Your task to perform on an android device: Add bose soundlink mini to the cart on target Image 0: 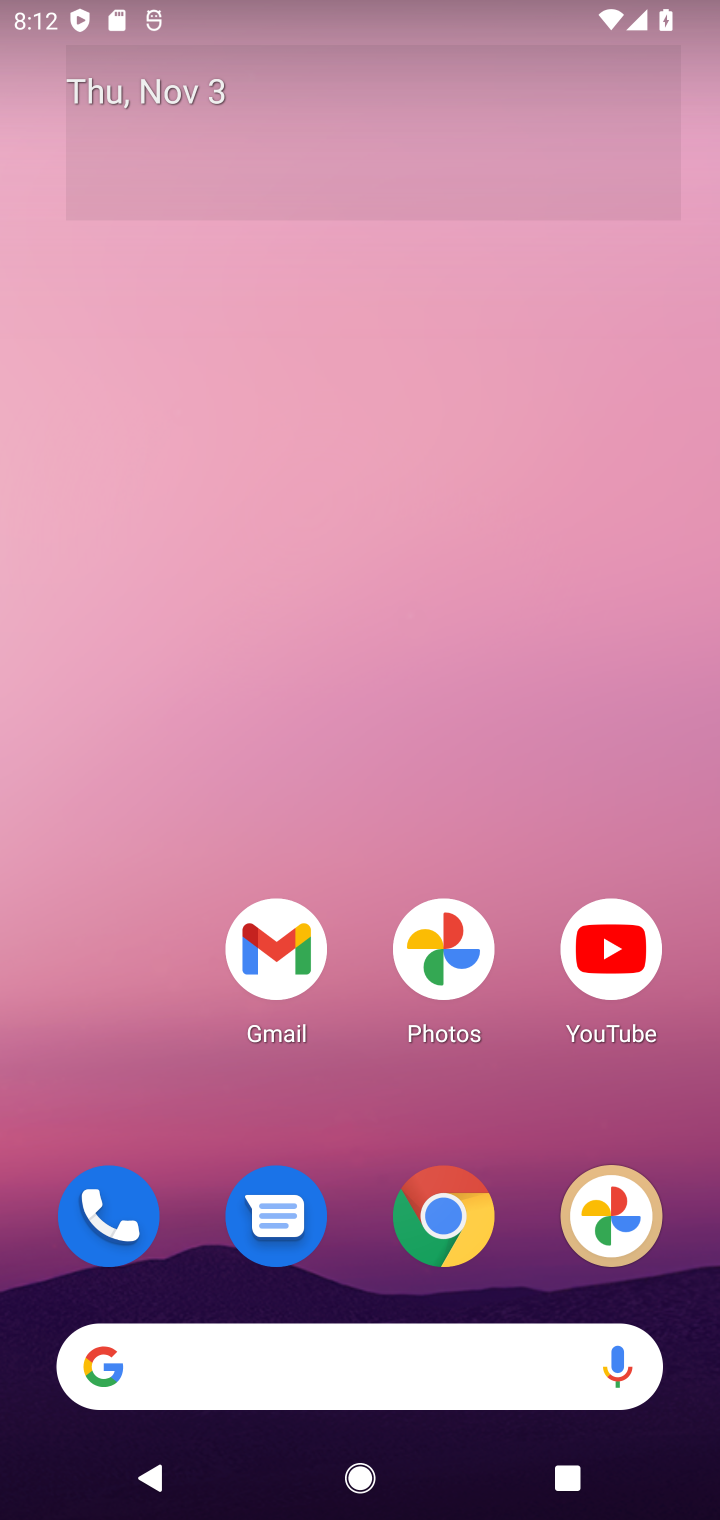
Step 0: click (460, 1237)
Your task to perform on an android device: Add bose soundlink mini to the cart on target Image 1: 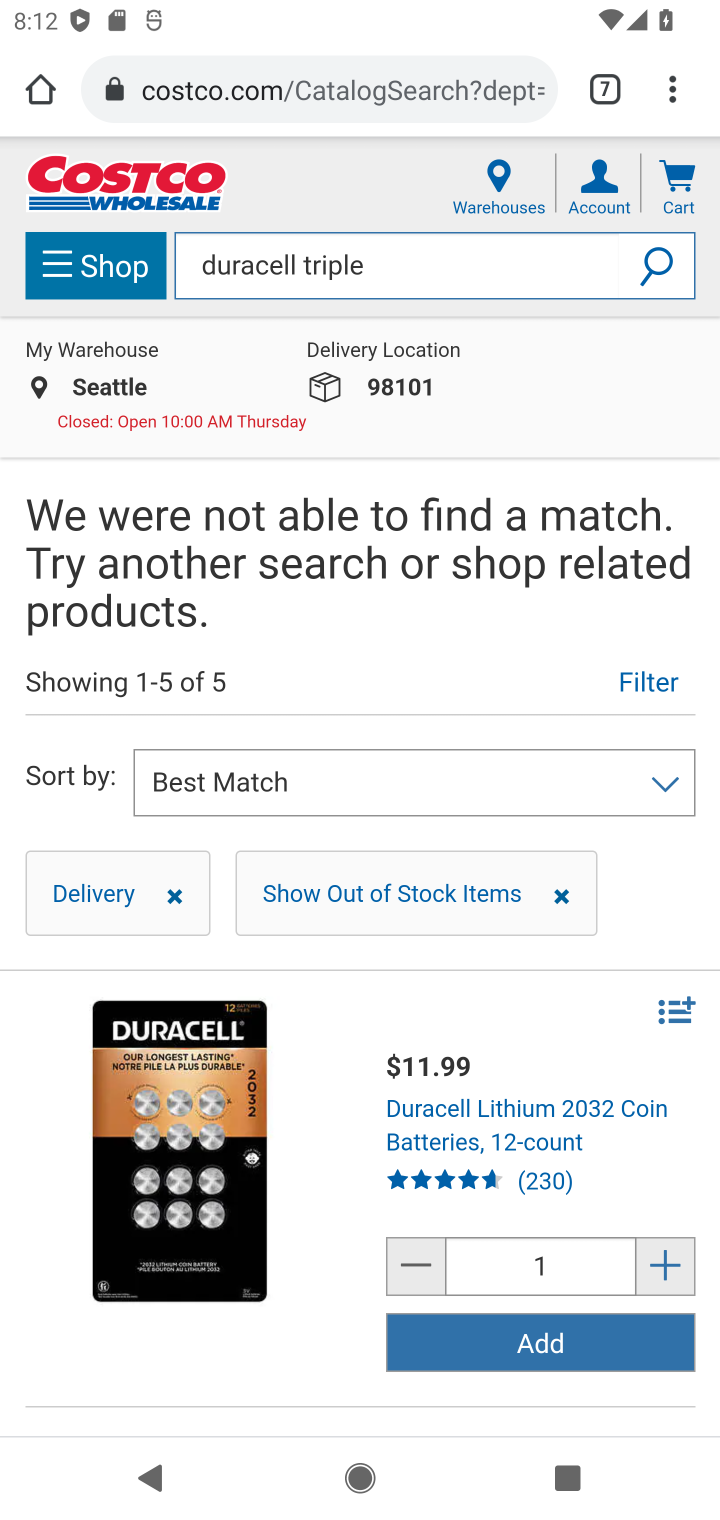
Step 1: click (611, 91)
Your task to perform on an android device: Add bose soundlink mini to the cart on target Image 2: 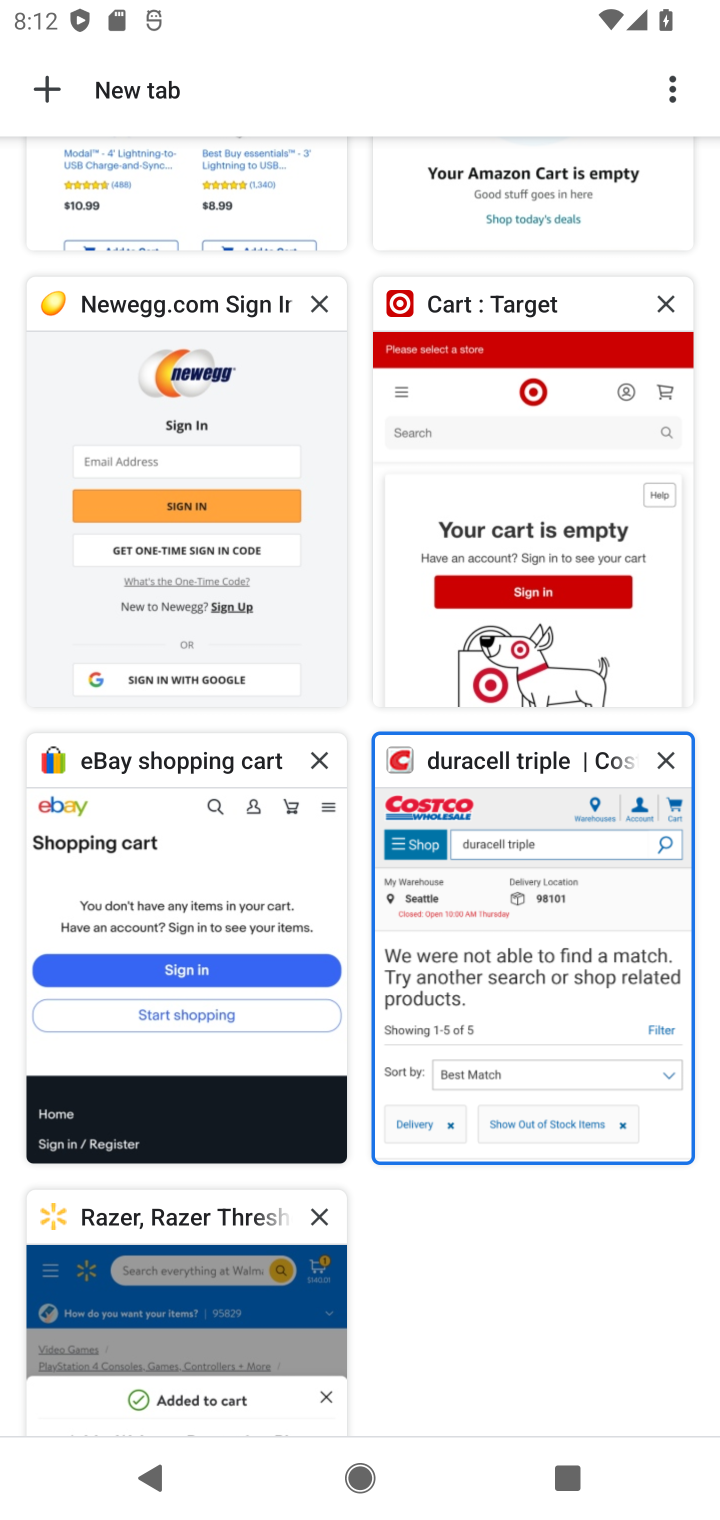
Step 2: click (567, 407)
Your task to perform on an android device: Add bose soundlink mini to the cart on target Image 3: 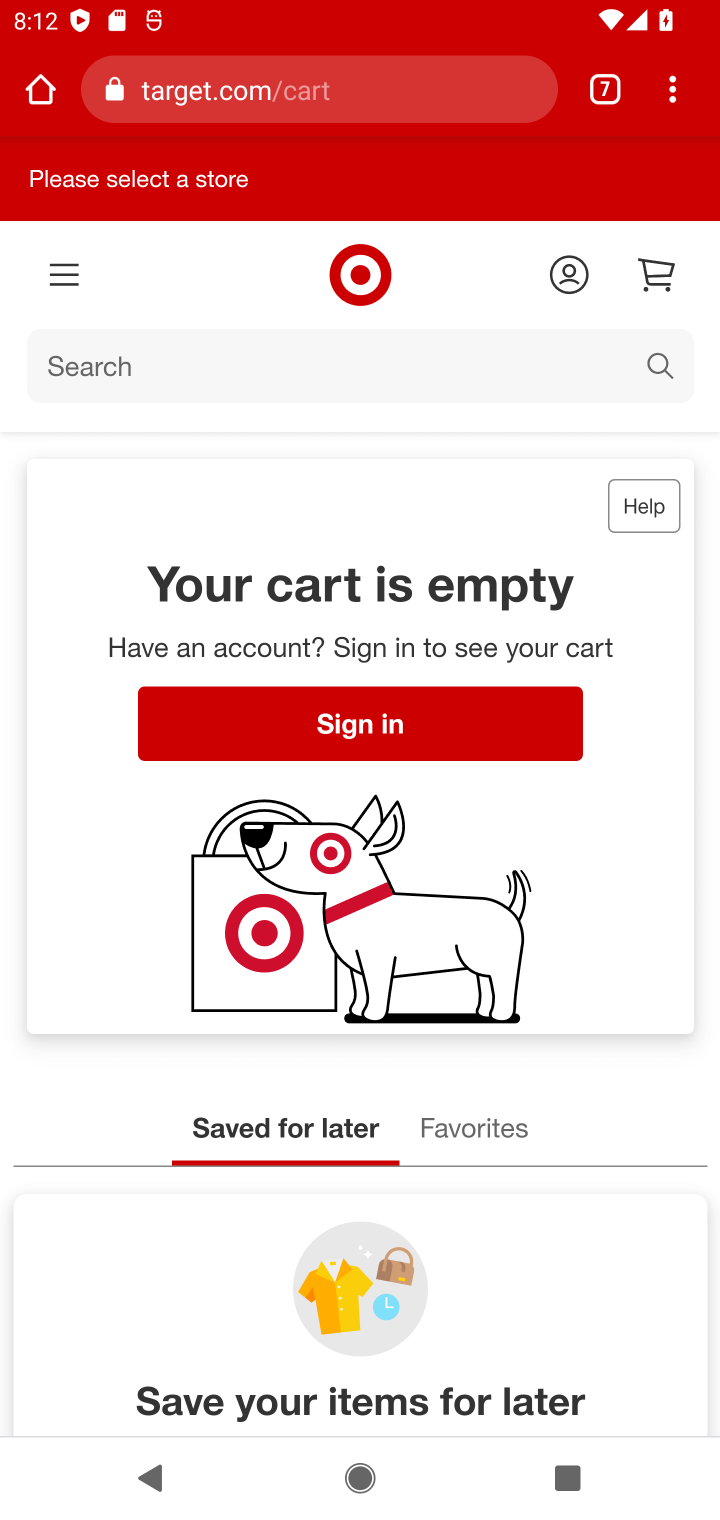
Step 3: click (469, 362)
Your task to perform on an android device: Add bose soundlink mini to the cart on target Image 4: 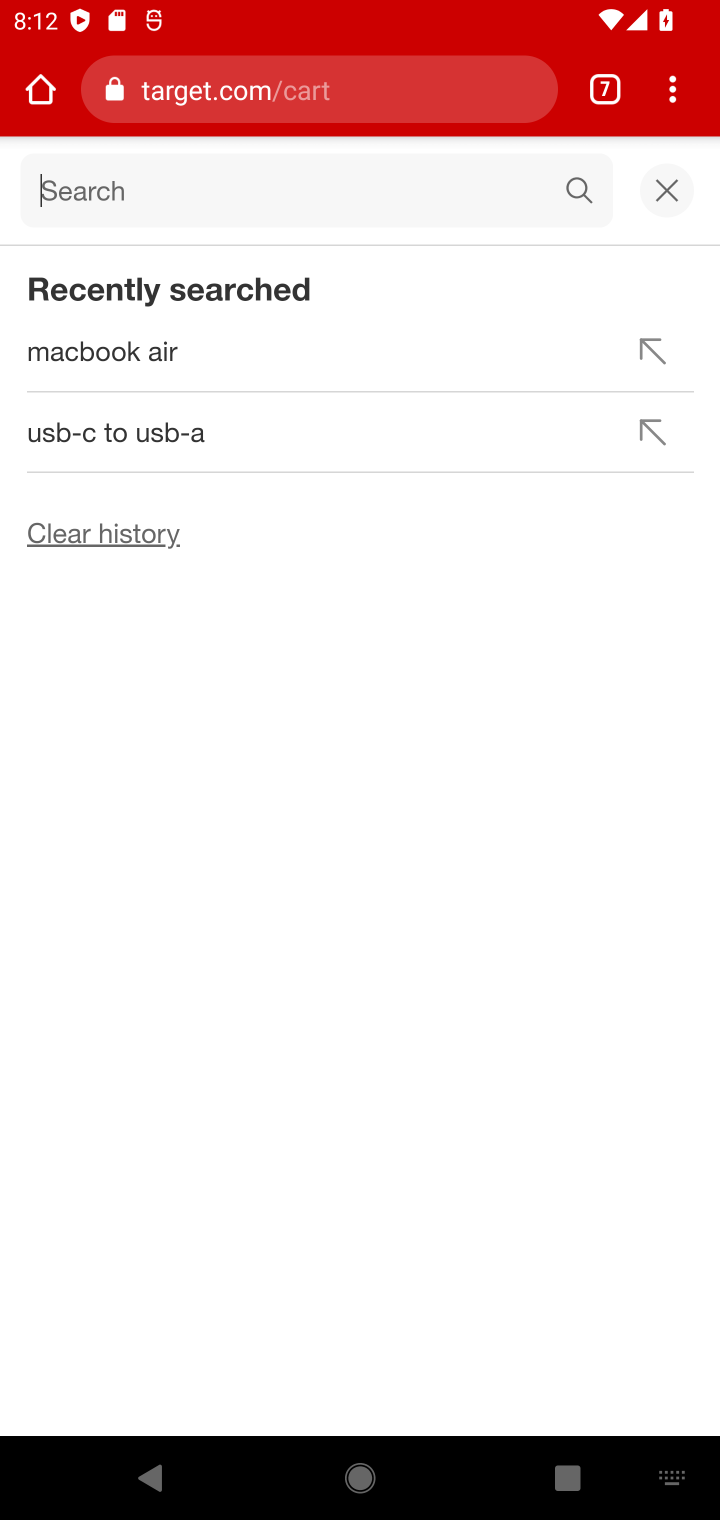
Step 4: type "bose soundlink mini "
Your task to perform on an android device: Add bose soundlink mini to the cart on target Image 5: 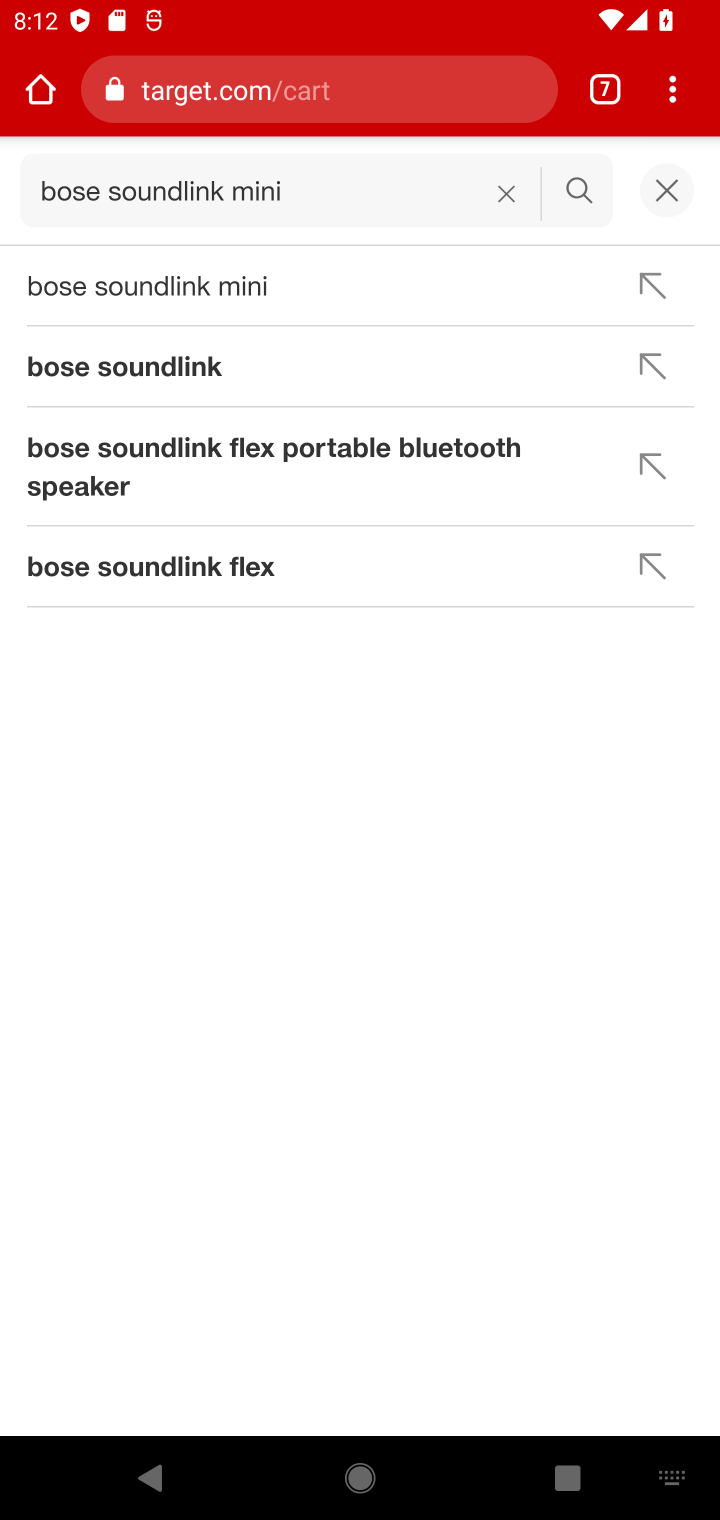
Step 5: press enter
Your task to perform on an android device: Add bose soundlink mini to the cart on target Image 6: 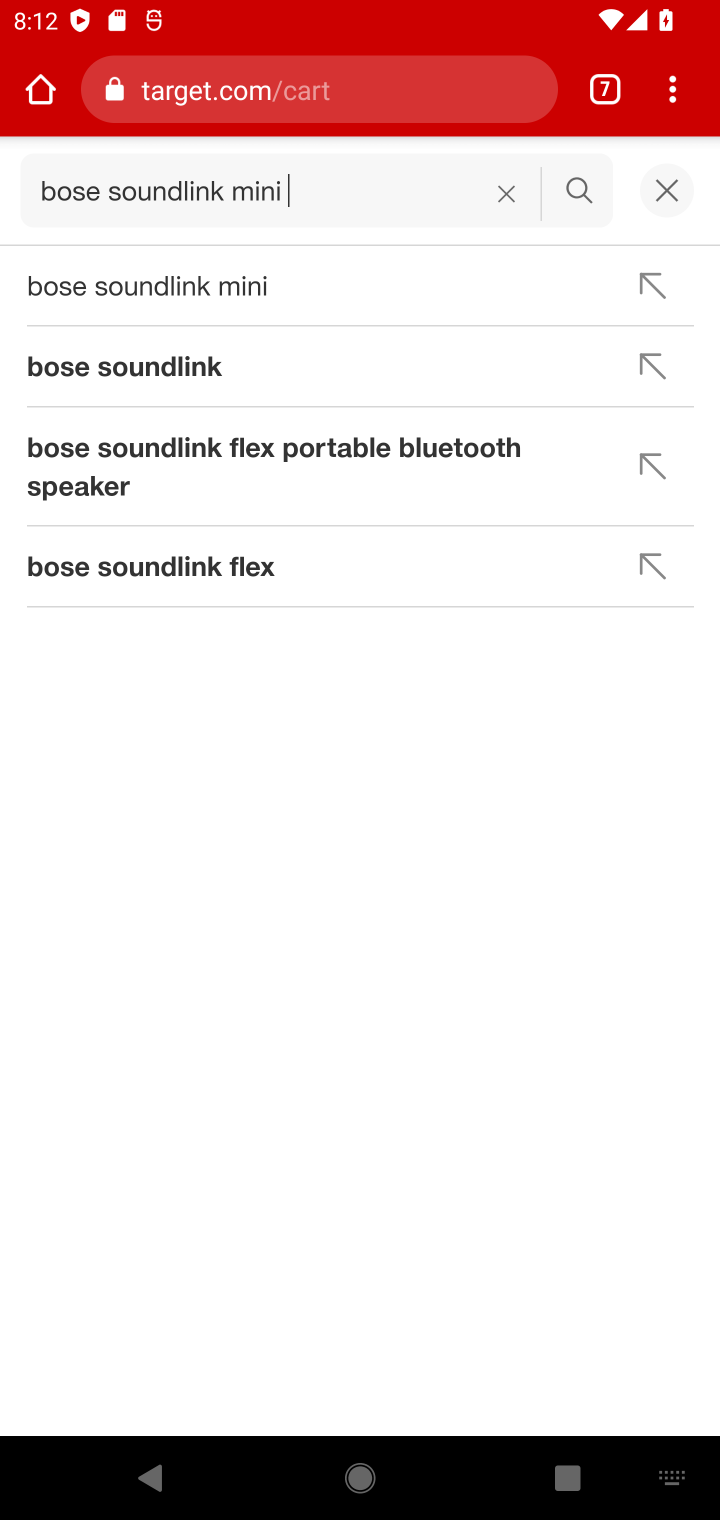
Step 6: press enter
Your task to perform on an android device: Add bose soundlink mini to the cart on target Image 7: 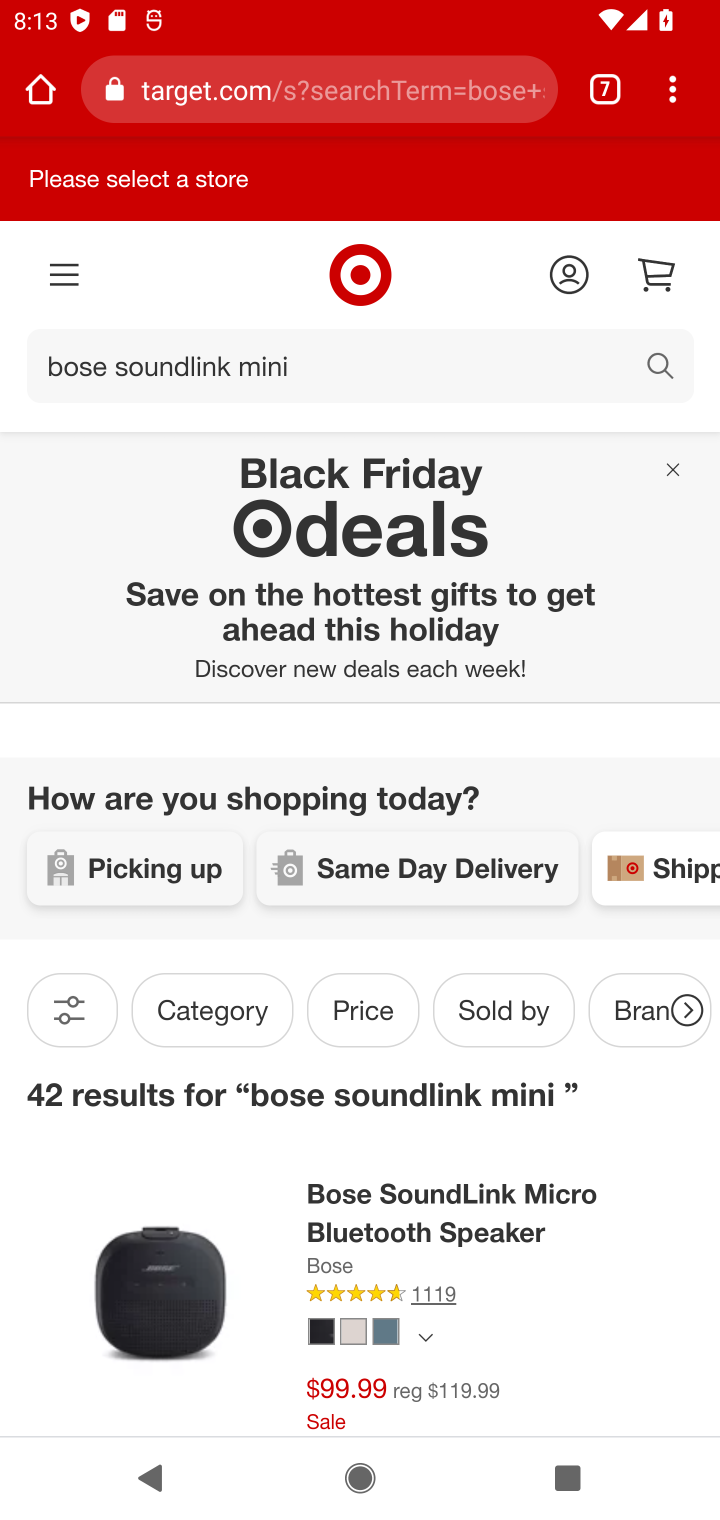
Step 7: click (510, 1220)
Your task to perform on an android device: Add bose soundlink mini to the cart on target Image 8: 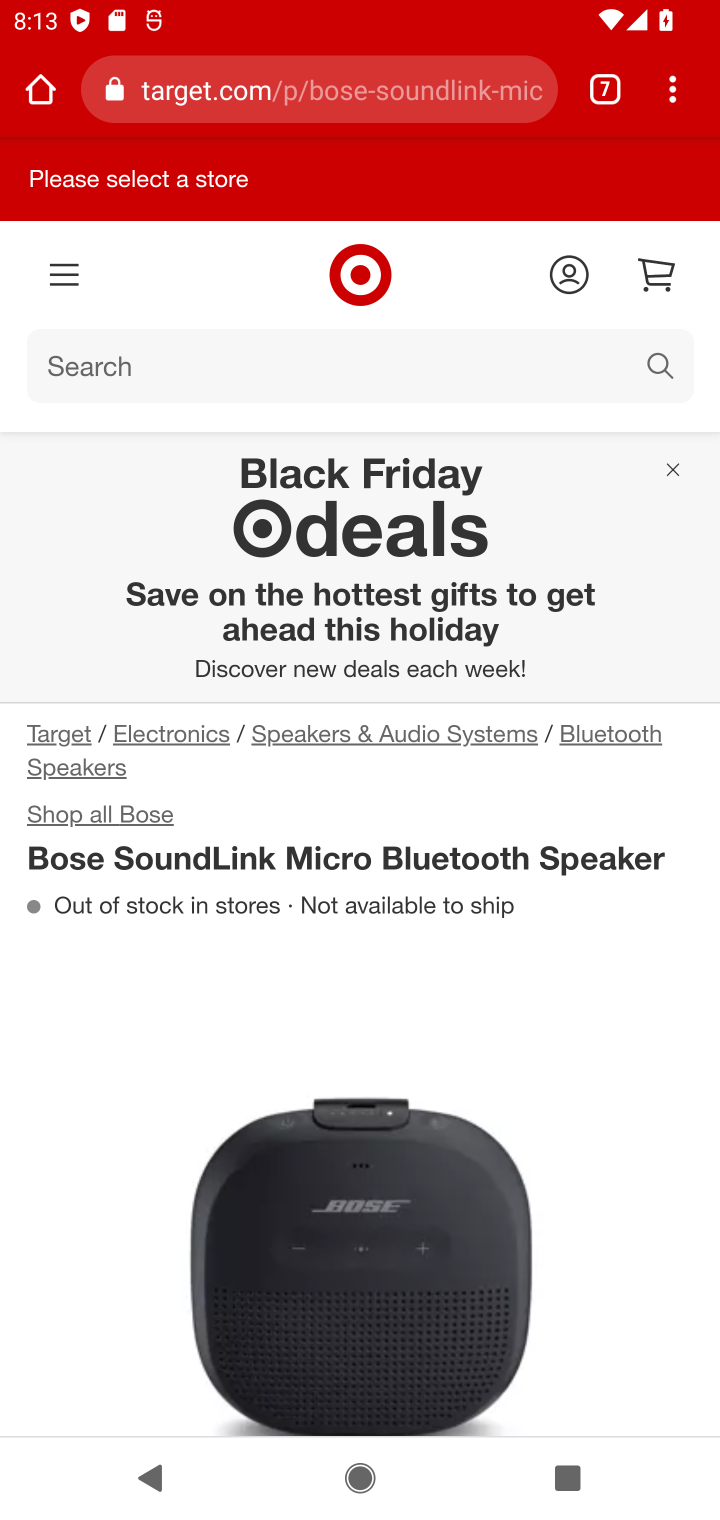
Step 8: click (565, 1201)
Your task to perform on an android device: Add bose soundlink mini to the cart on target Image 9: 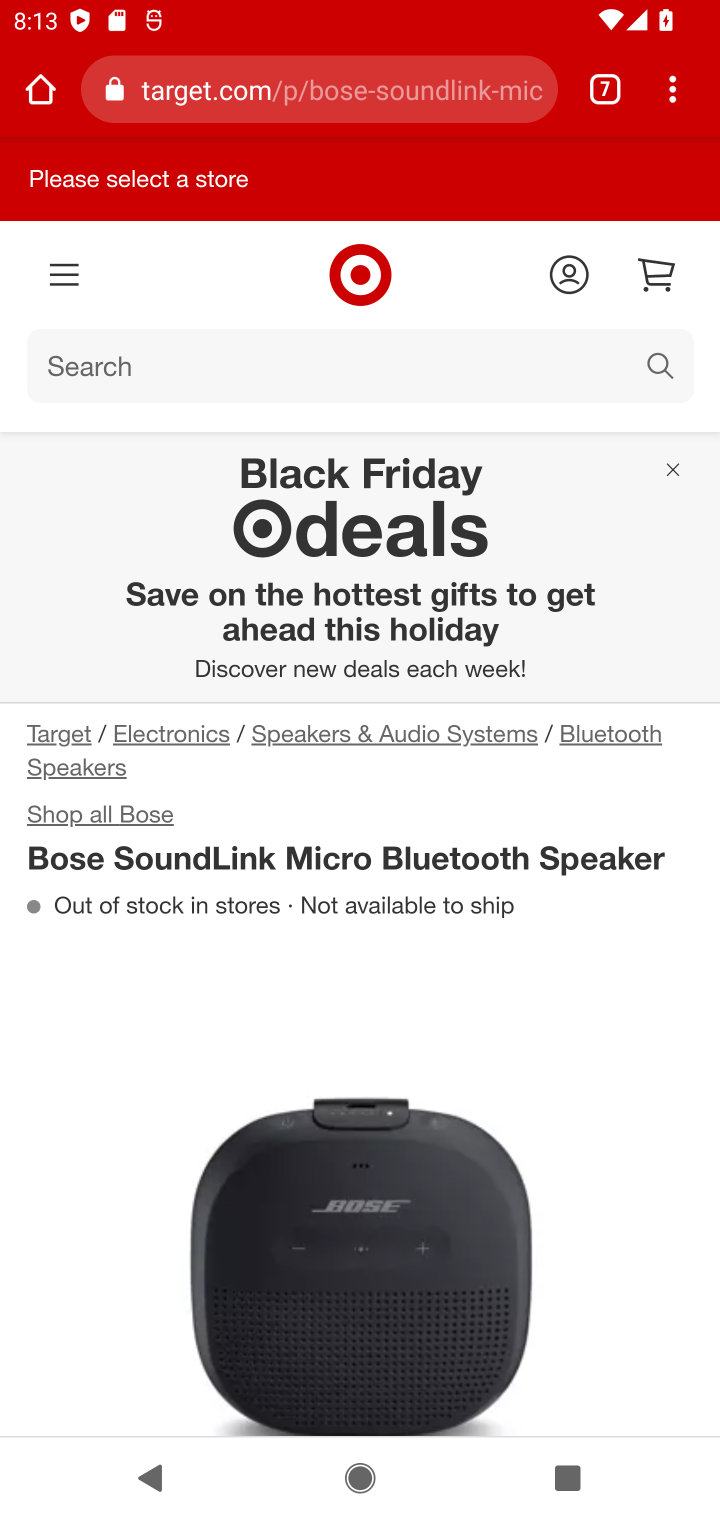
Step 9: drag from (565, 1201) to (577, 577)
Your task to perform on an android device: Add bose soundlink mini to the cart on target Image 10: 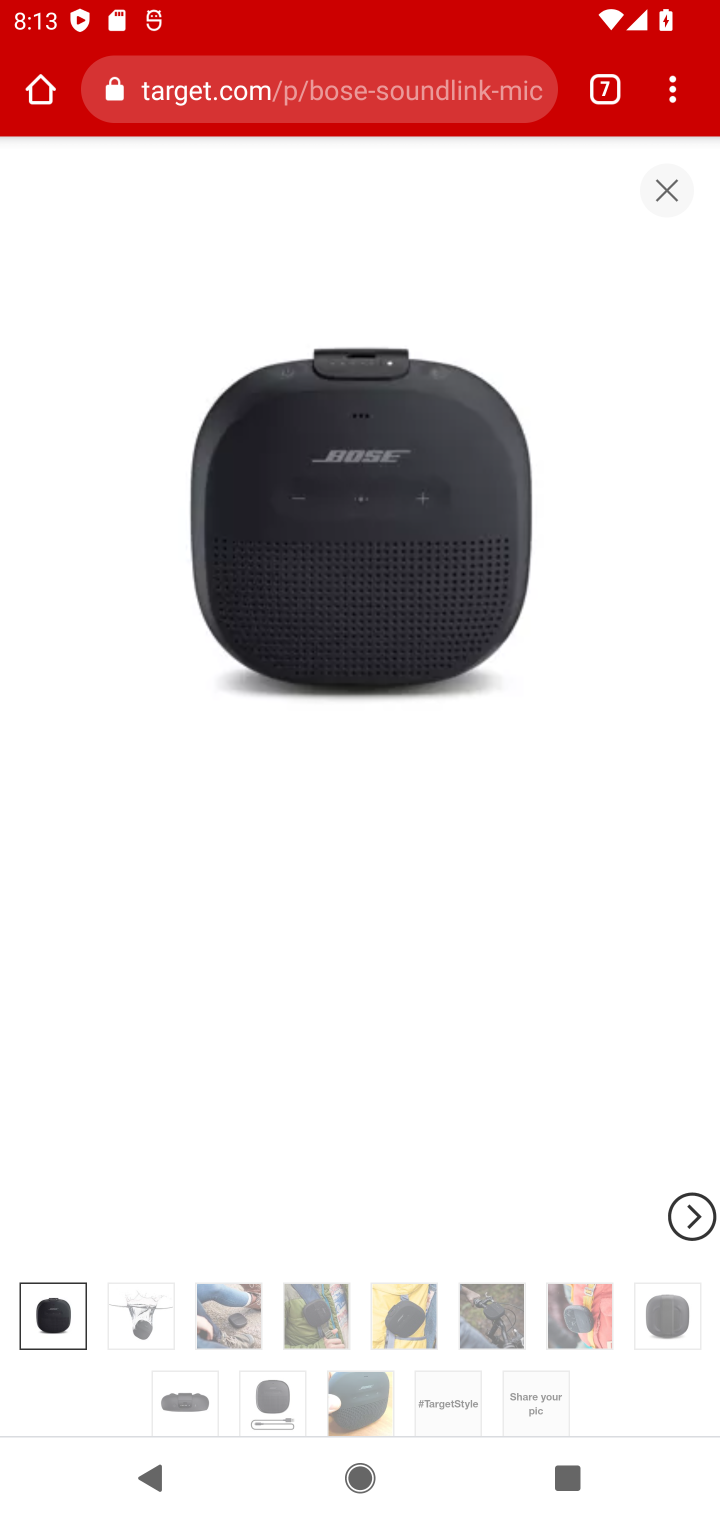
Step 10: click (658, 191)
Your task to perform on an android device: Add bose soundlink mini to the cart on target Image 11: 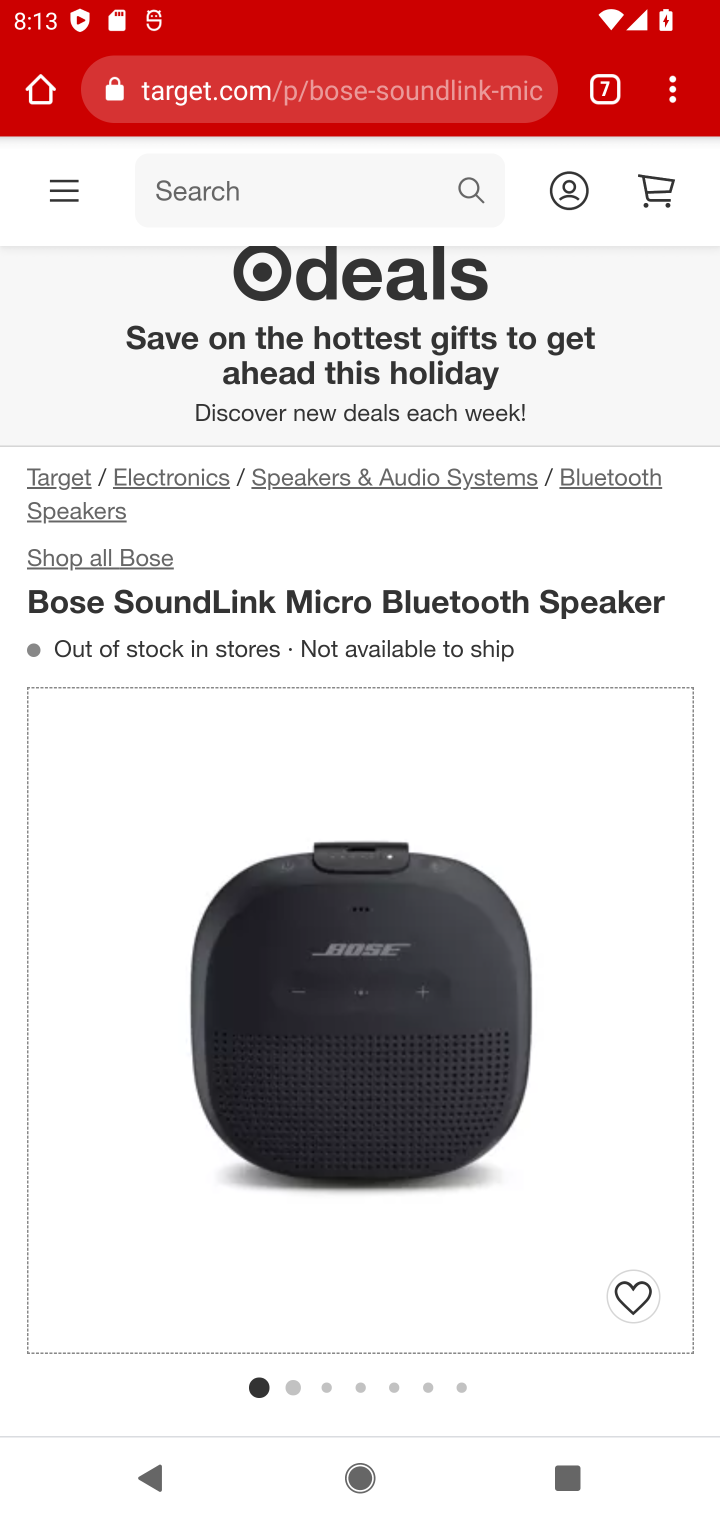
Step 11: drag from (546, 1398) to (429, 506)
Your task to perform on an android device: Add bose soundlink mini to the cart on target Image 12: 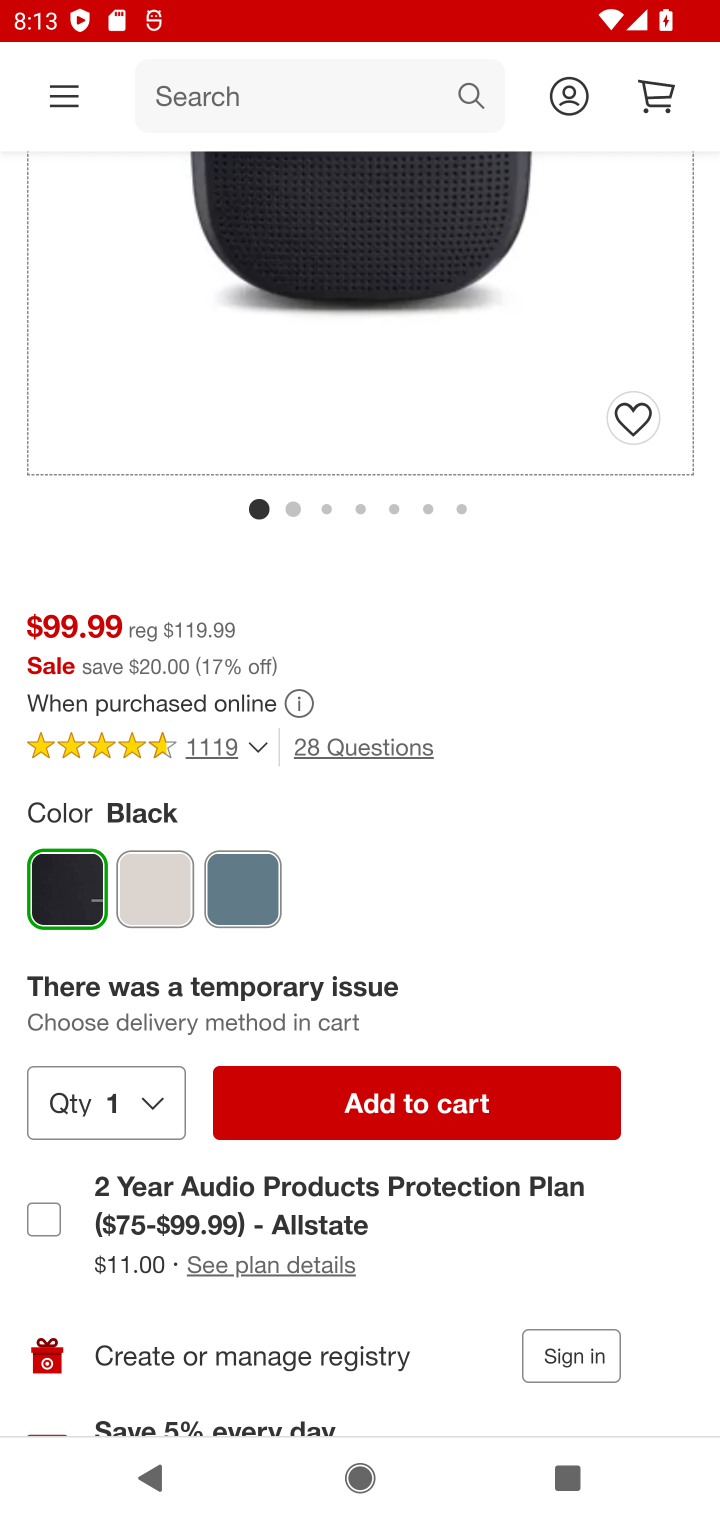
Step 12: click (477, 1117)
Your task to perform on an android device: Add bose soundlink mini to the cart on target Image 13: 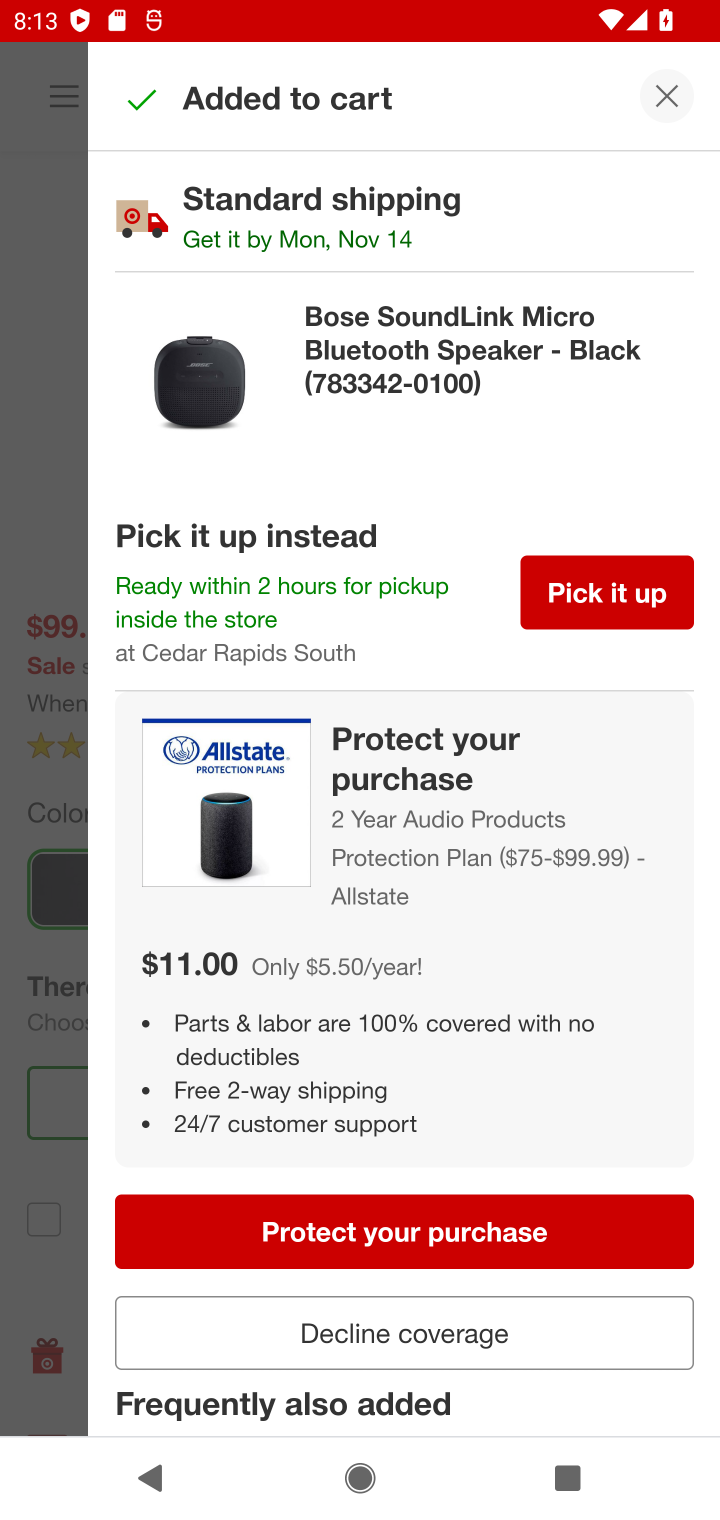
Step 13: task complete